Your task to perform on an android device: Open calendar and show me the fourth week of next month Image 0: 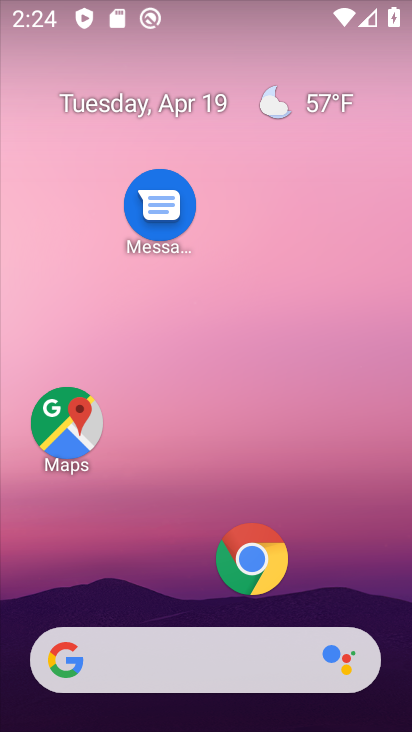
Step 0: drag from (160, 599) to (175, 158)
Your task to perform on an android device: Open calendar and show me the fourth week of next month Image 1: 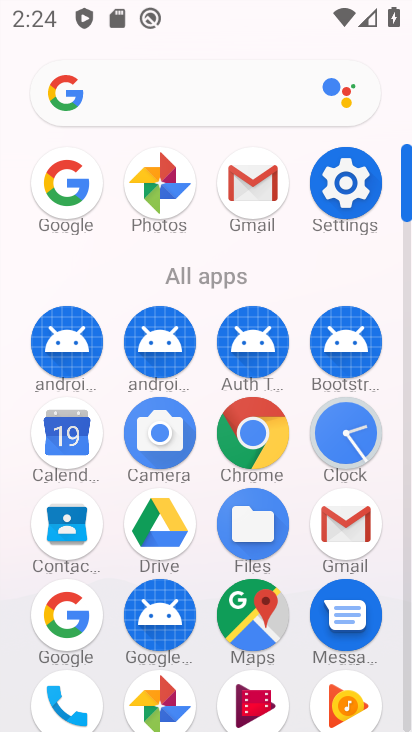
Step 1: drag from (125, 538) to (127, 316)
Your task to perform on an android device: Open calendar and show me the fourth week of next month Image 2: 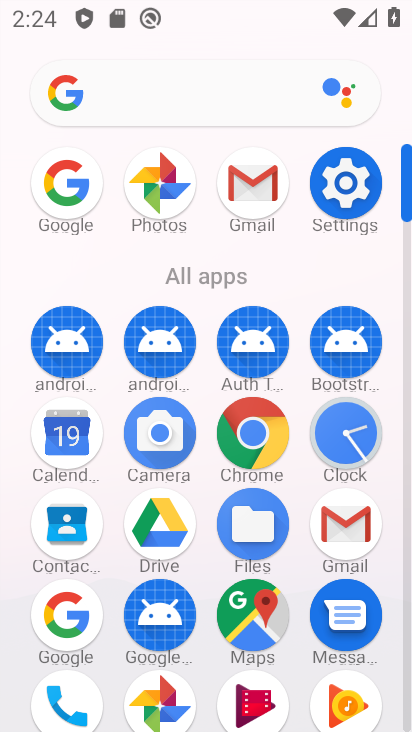
Step 2: click (12, 448)
Your task to perform on an android device: Open calendar and show me the fourth week of next month Image 3: 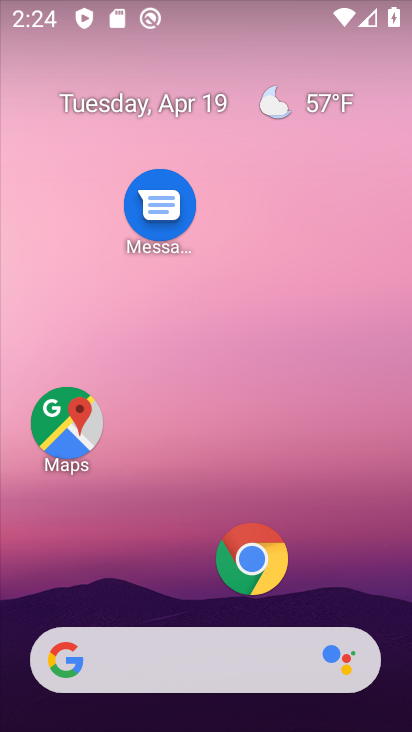
Step 3: drag from (188, 589) to (198, 182)
Your task to perform on an android device: Open calendar and show me the fourth week of next month Image 4: 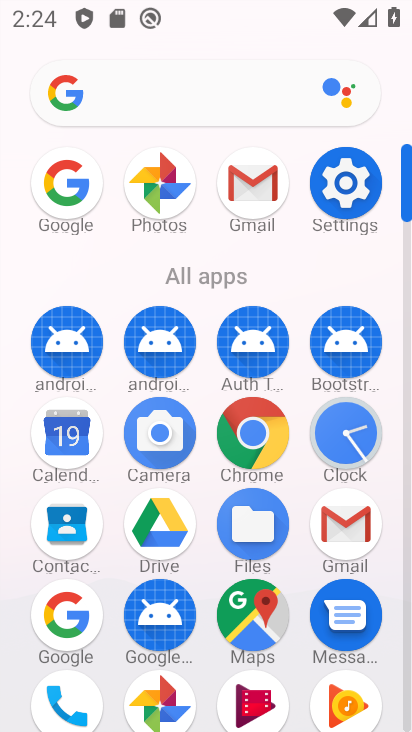
Step 4: click (61, 453)
Your task to perform on an android device: Open calendar and show me the fourth week of next month Image 5: 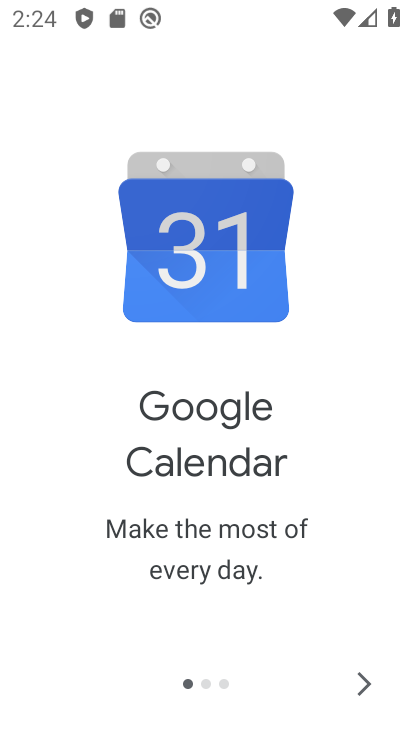
Step 5: click (351, 678)
Your task to perform on an android device: Open calendar and show me the fourth week of next month Image 6: 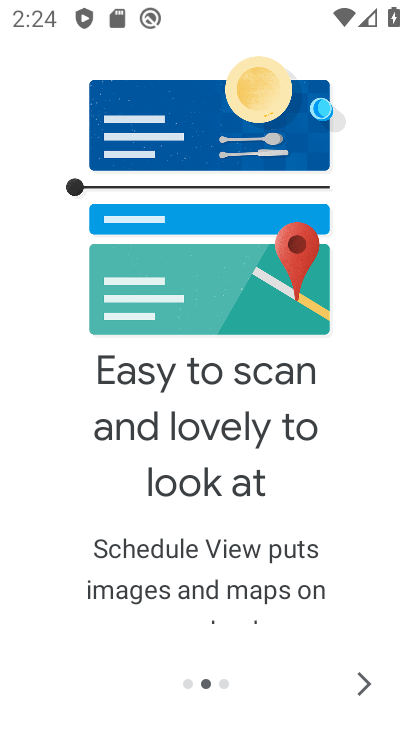
Step 6: click (351, 678)
Your task to perform on an android device: Open calendar and show me the fourth week of next month Image 7: 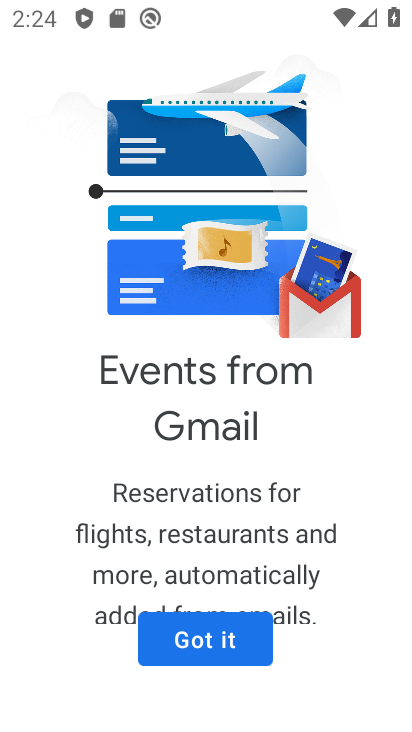
Step 7: click (242, 628)
Your task to perform on an android device: Open calendar and show me the fourth week of next month Image 8: 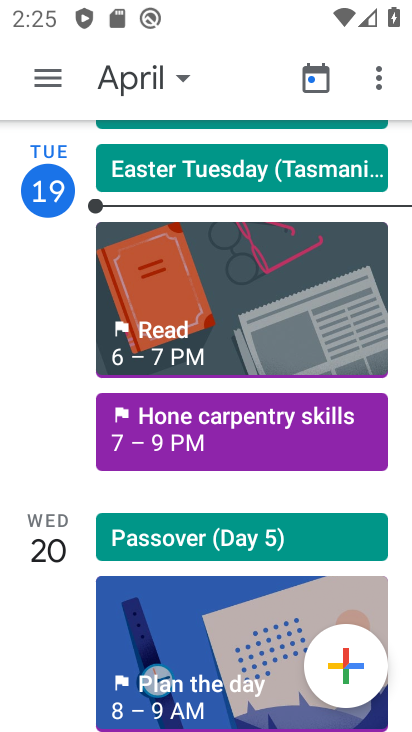
Step 8: click (183, 84)
Your task to perform on an android device: Open calendar and show me the fourth week of next month Image 9: 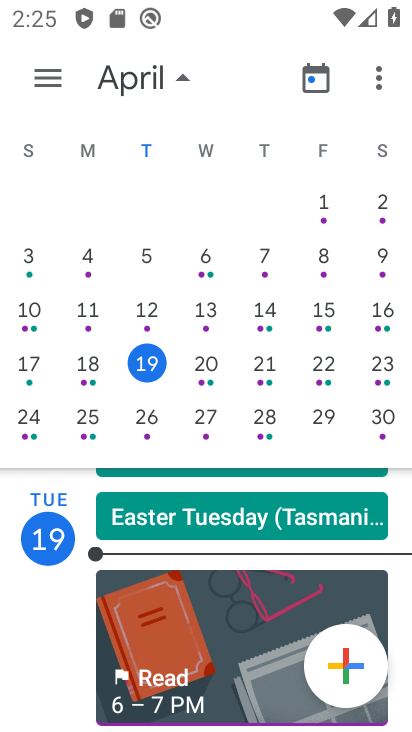
Step 9: drag from (344, 296) to (49, 238)
Your task to perform on an android device: Open calendar and show me the fourth week of next month Image 10: 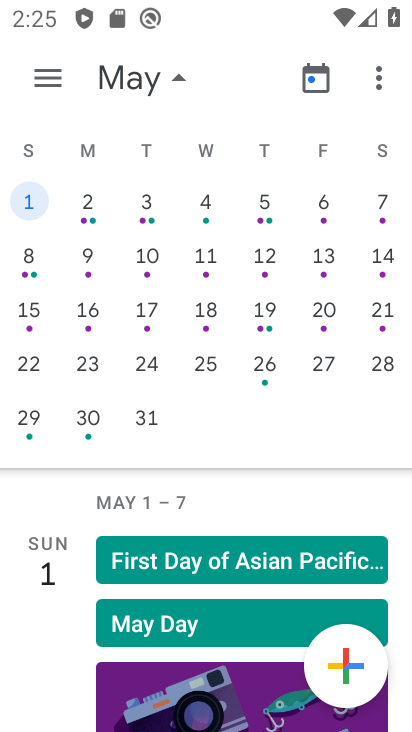
Step 10: click (94, 366)
Your task to perform on an android device: Open calendar and show me the fourth week of next month Image 11: 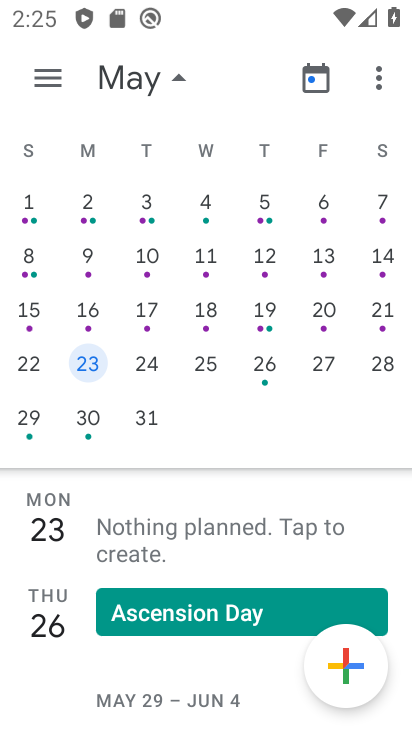
Step 11: task complete